Your task to perform on an android device: change timer sound Image 0: 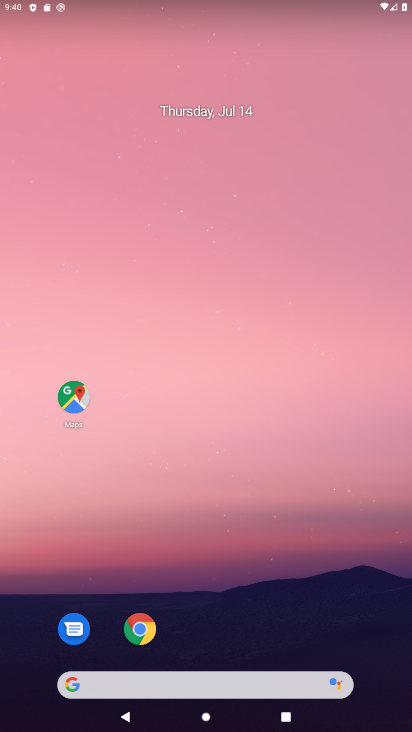
Step 0: drag from (198, 650) to (295, 55)
Your task to perform on an android device: change timer sound Image 1: 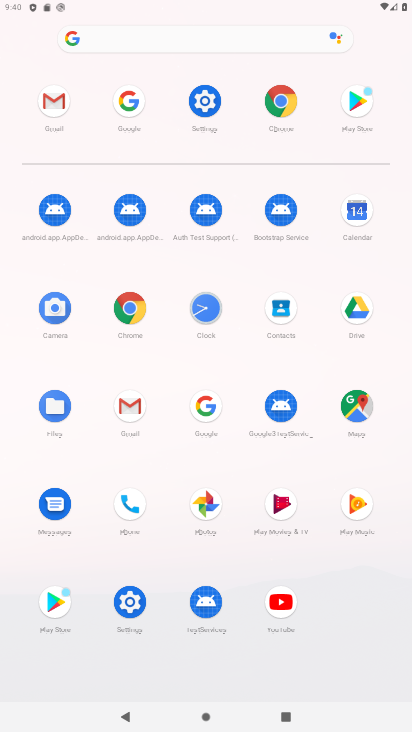
Step 1: click (199, 313)
Your task to perform on an android device: change timer sound Image 2: 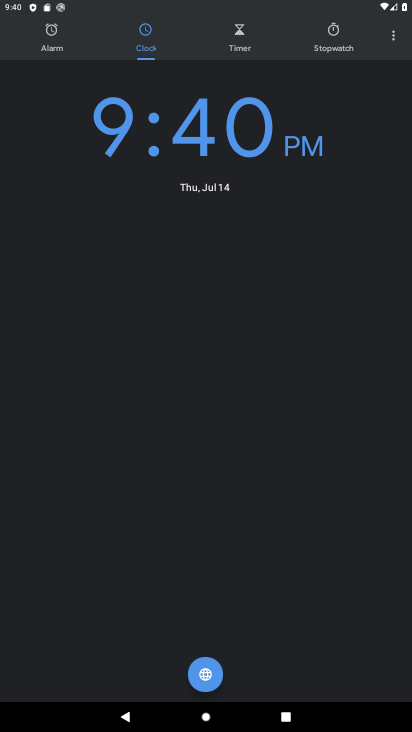
Step 2: click (390, 34)
Your task to perform on an android device: change timer sound Image 3: 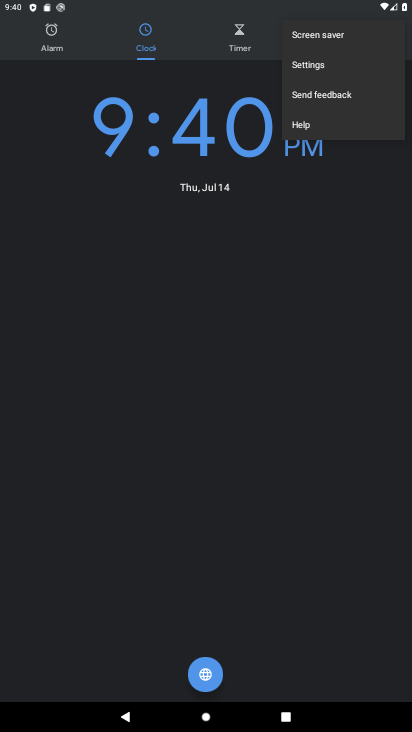
Step 3: click (320, 64)
Your task to perform on an android device: change timer sound Image 4: 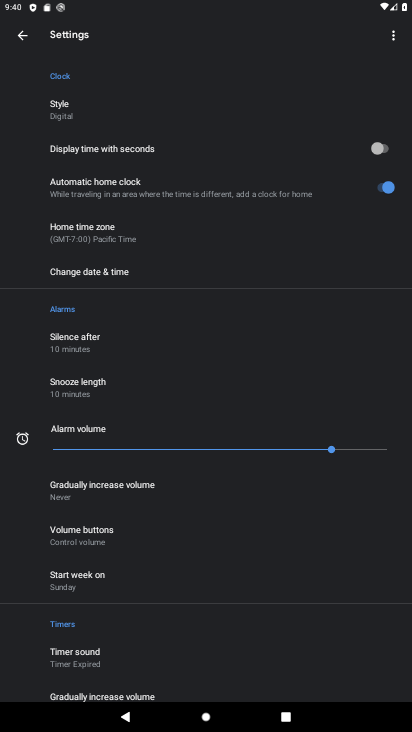
Step 4: click (121, 673)
Your task to perform on an android device: change timer sound Image 5: 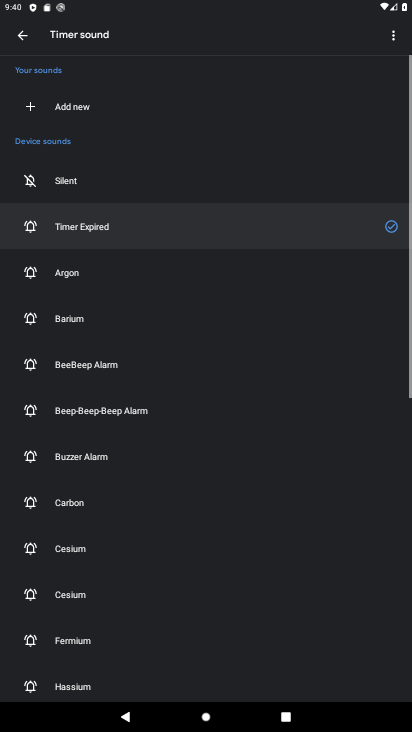
Step 5: click (75, 269)
Your task to perform on an android device: change timer sound Image 6: 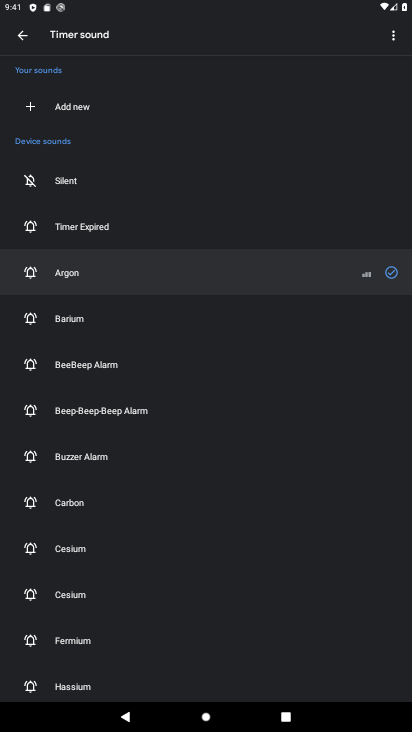
Step 6: task complete